Your task to perform on an android device: turn on the 24-hour format for clock Image 0: 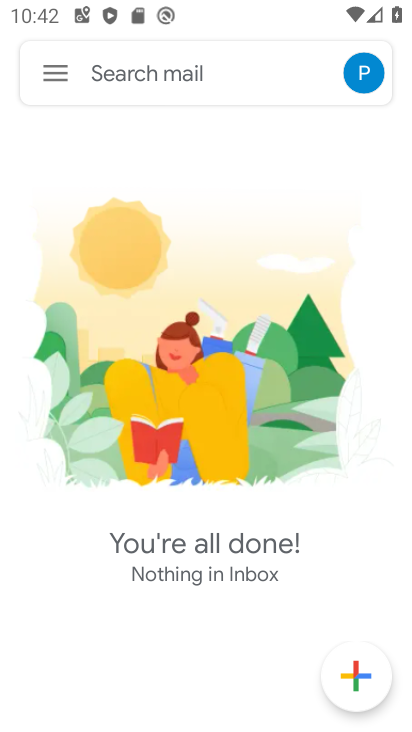
Step 0: press home button
Your task to perform on an android device: turn on the 24-hour format for clock Image 1: 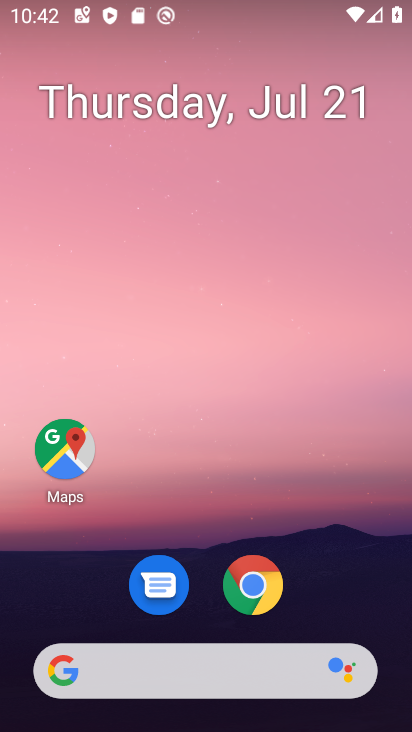
Step 1: drag from (211, 675) to (342, 483)
Your task to perform on an android device: turn on the 24-hour format for clock Image 2: 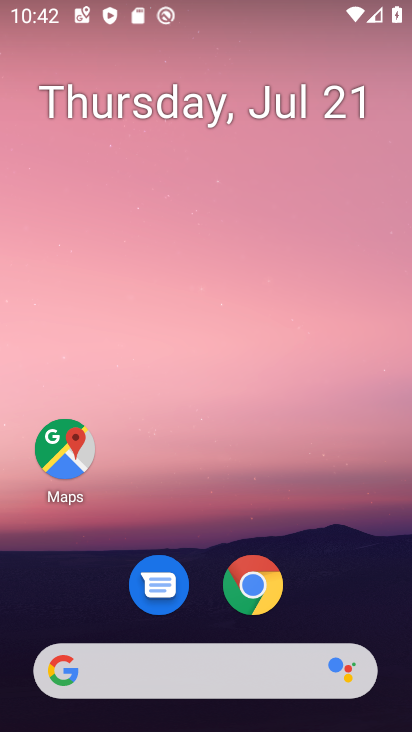
Step 2: drag from (187, 647) to (349, 128)
Your task to perform on an android device: turn on the 24-hour format for clock Image 3: 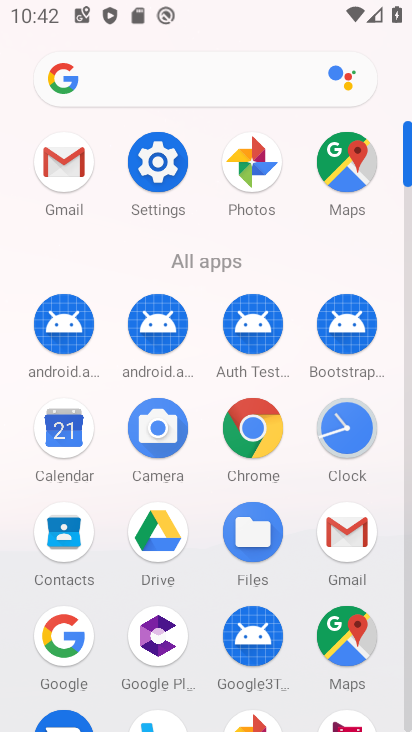
Step 3: click (347, 431)
Your task to perform on an android device: turn on the 24-hour format for clock Image 4: 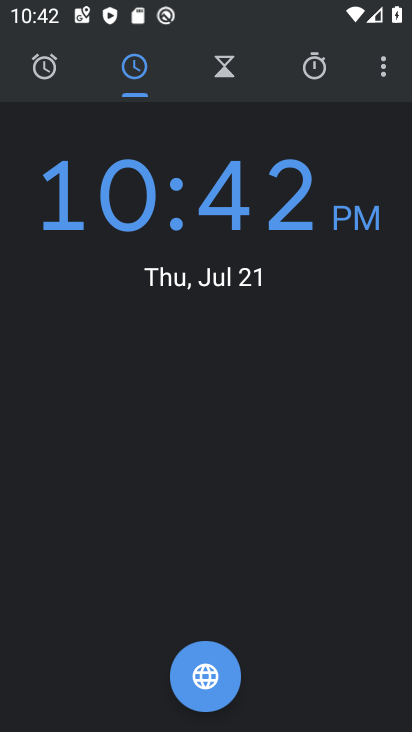
Step 4: click (384, 60)
Your task to perform on an android device: turn on the 24-hour format for clock Image 5: 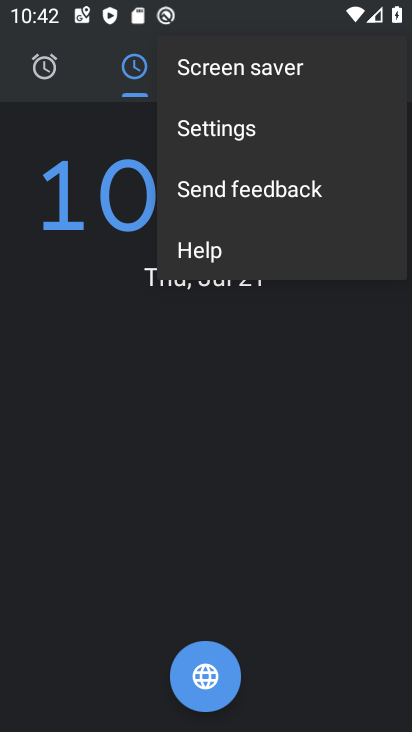
Step 5: click (227, 132)
Your task to perform on an android device: turn on the 24-hour format for clock Image 6: 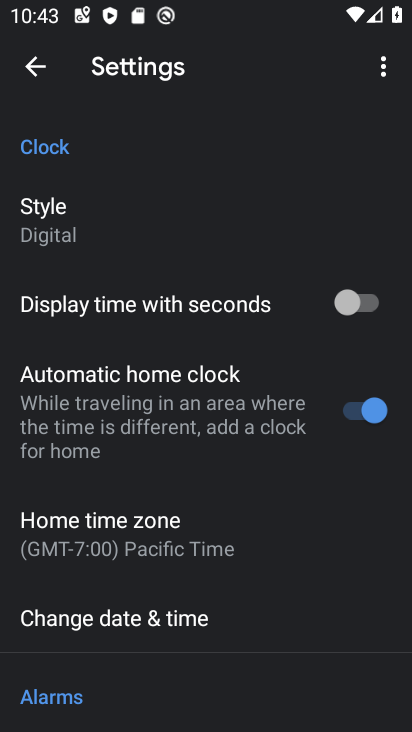
Step 6: click (175, 617)
Your task to perform on an android device: turn on the 24-hour format for clock Image 7: 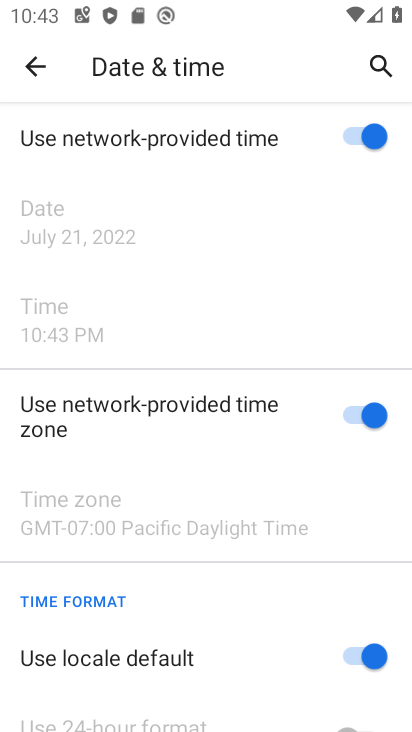
Step 7: drag from (166, 629) to (261, 178)
Your task to perform on an android device: turn on the 24-hour format for clock Image 8: 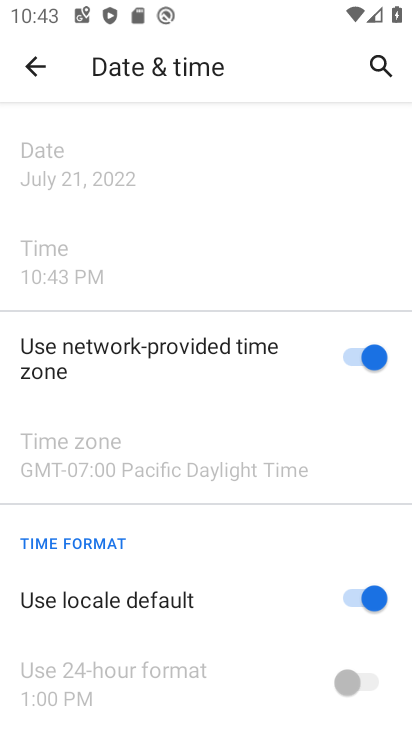
Step 8: click (355, 601)
Your task to perform on an android device: turn on the 24-hour format for clock Image 9: 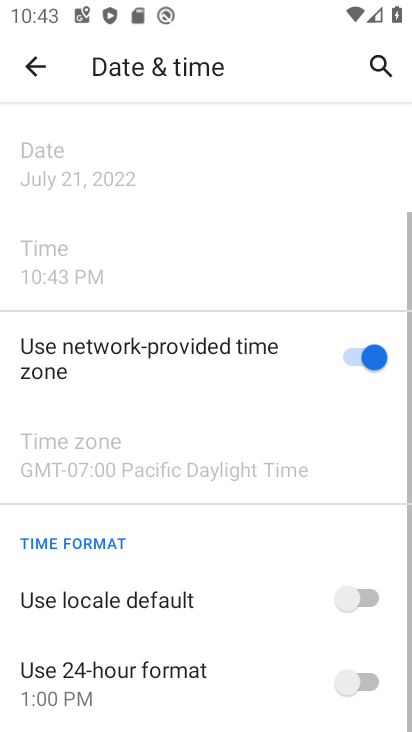
Step 9: click (375, 679)
Your task to perform on an android device: turn on the 24-hour format for clock Image 10: 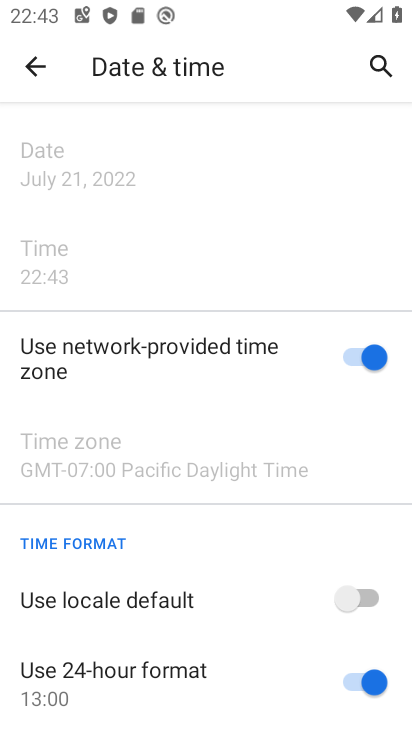
Step 10: task complete